Your task to perform on an android device: Open location settings Image 0: 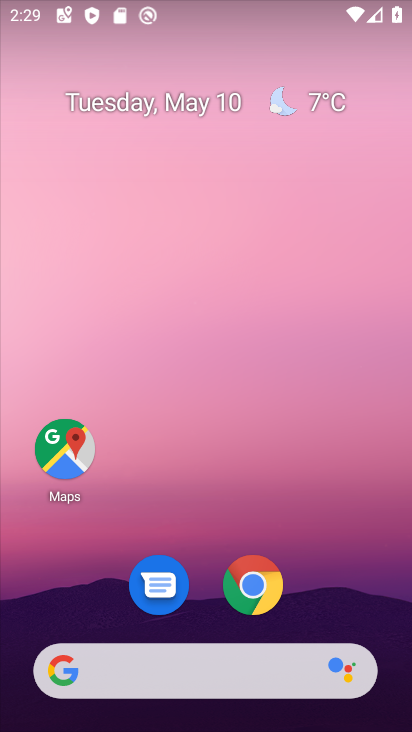
Step 0: drag from (256, 517) to (154, 44)
Your task to perform on an android device: Open location settings Image 1: 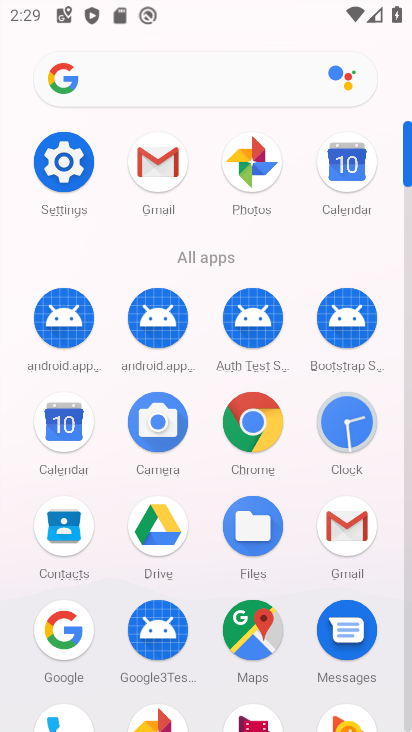
Step 1: click (58, 158)
Your task to perform on an android device: Open location settings Image 2: 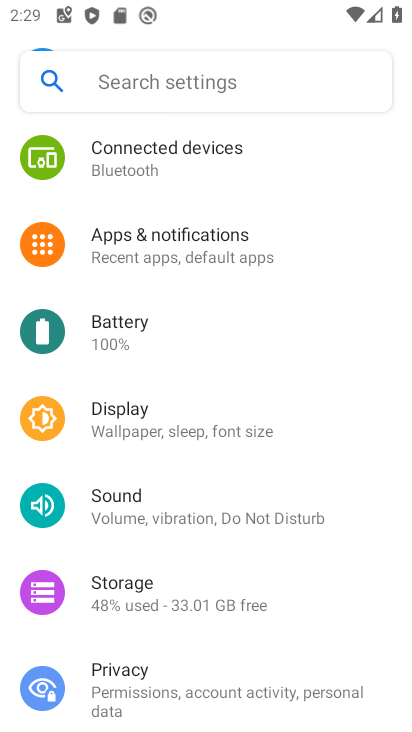
Step 2: drag from (207, 570) to (206, 198)
Your task to perform on an android device: Open location settings Image 3: 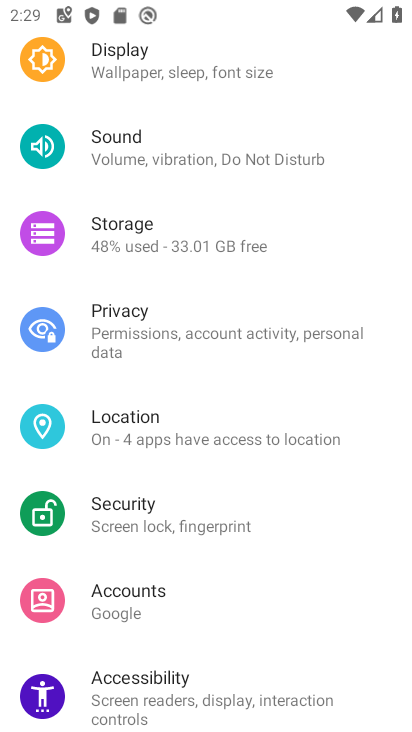
Step 3: click (202, 419)
Your task to perform on an android device: Open location settings Image 4: 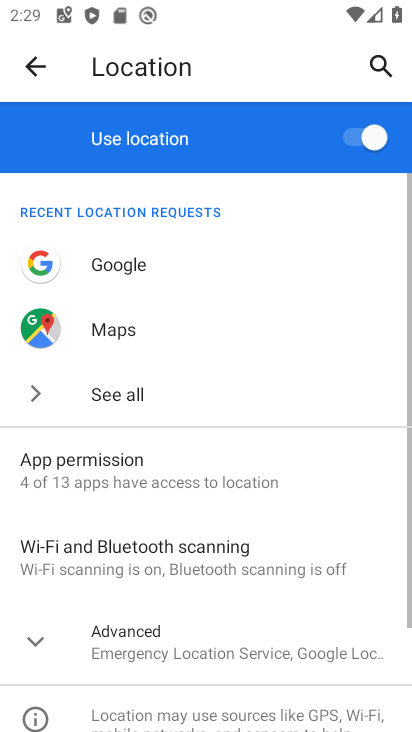
Step 4: task complete